Your task to perform on an android device: Open Youtube and go to the subscriptions tab Image 0: 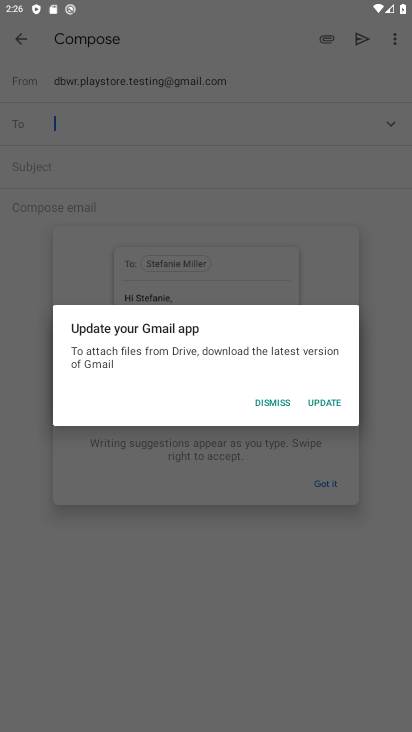
Step 0: press home button
Your task to perform on an android device: Open Youtube and go to the subscriptions tab Image 1: 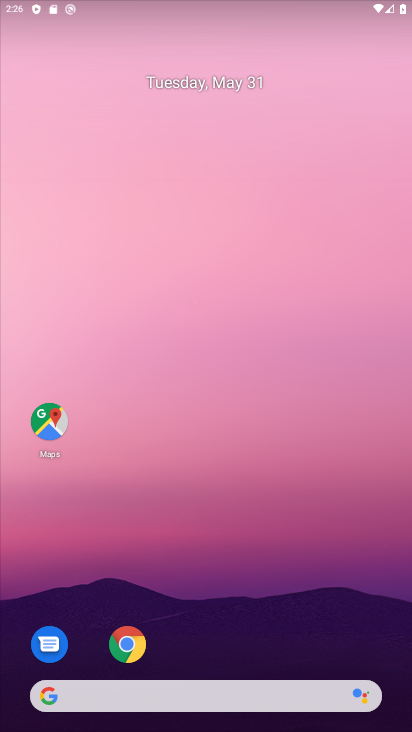
Step 1: drag from (103, 730) to (68, 46)
Your task to perform on an android device: Open Youtube and go to the subscriptions tab Image 2: 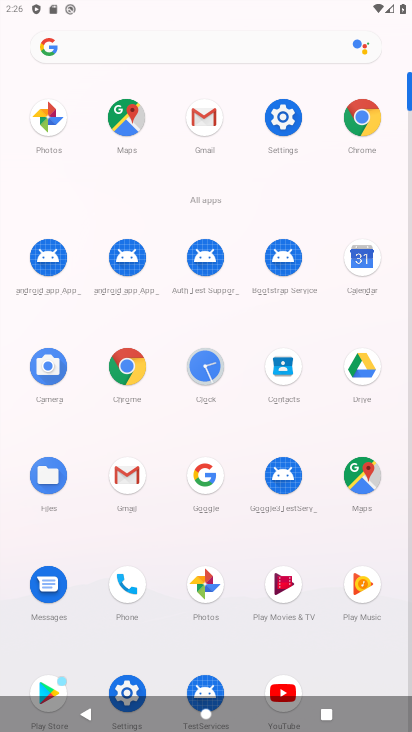
Step 2: click (284, 682)
Your task to perform on an android device: Open Youtube and go to the subscriptions tab Image 3: 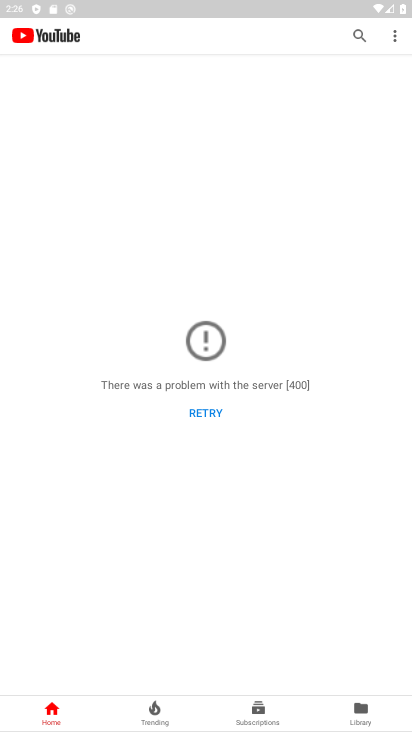
Step 3: click (257, 712)
Your task to perform on an android device: Open Youtube and go to the subscriptions tab Image 4: 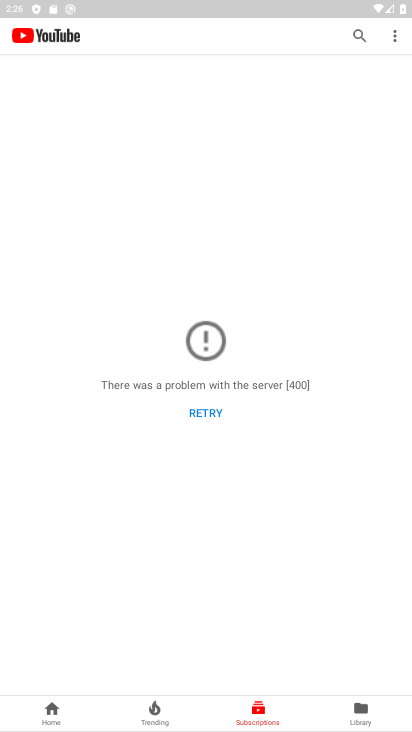
Step 4: task complete